Your task to perform on an android device: turn off location Image 0: 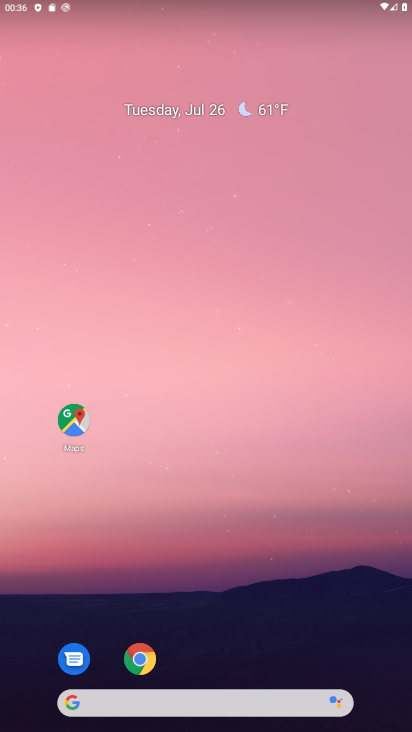
Step 0: drag from (231, 363) to (244, 67)
Your task to perform on an android device: turn off location Image 1: 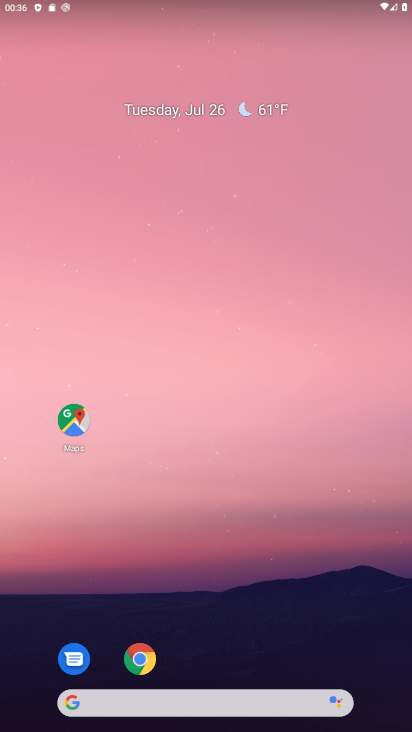
Step 1: drag from (220, 259) to (224, 84)
Your task to perform on an android device: turn off location Image 2: 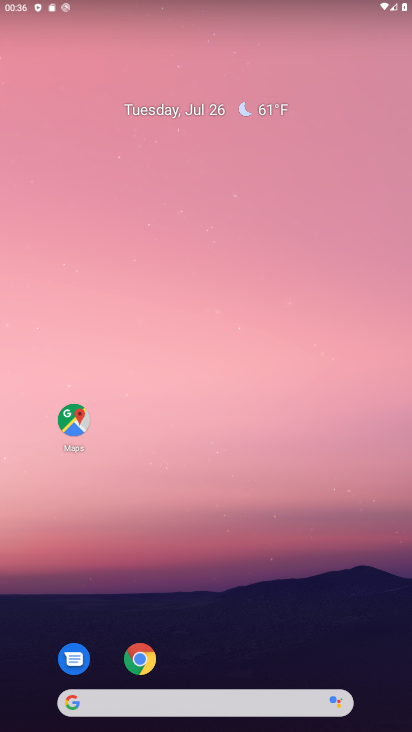
Step 2: drag from (259, 651) to (264, 149)
Your task to perform on an android device: turn off location Image 3: 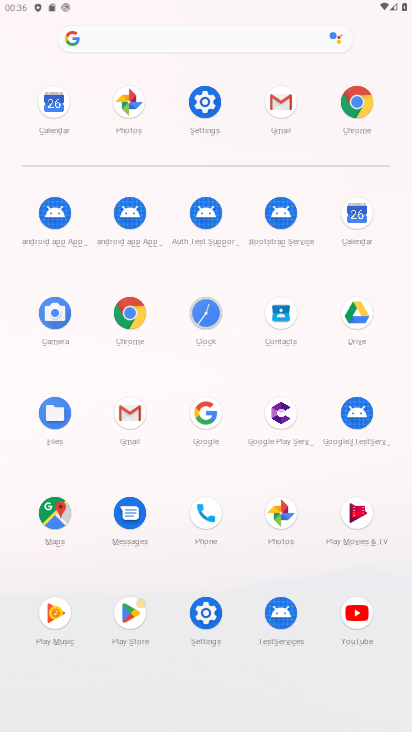
Step 3: click (205, 100)
Your task to perform on an android device: turn off location Image 4: 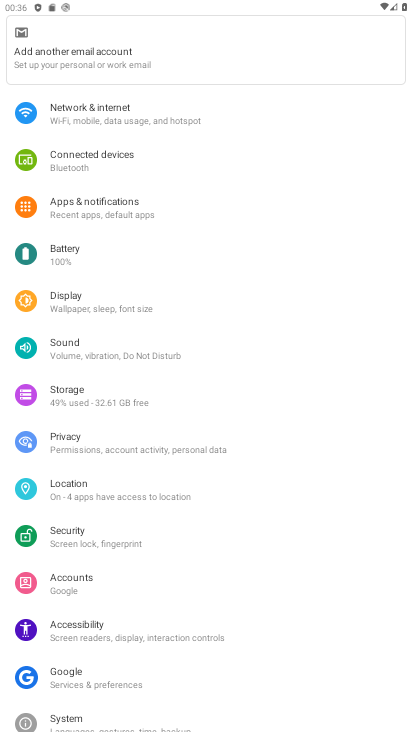
Step 4: click (125, 490)
Your task to perform on an android device: turn off location Image 5: 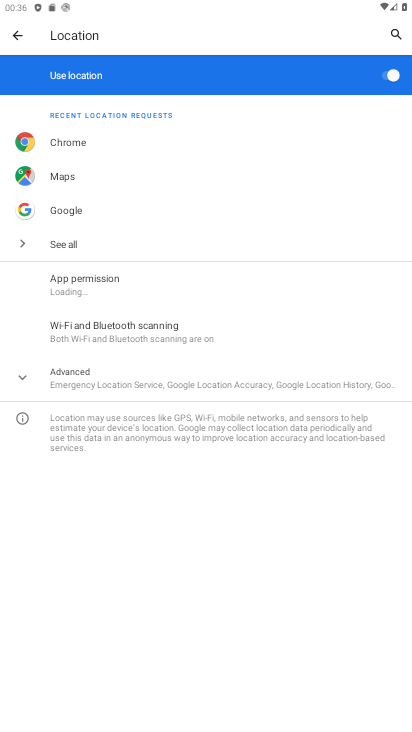
Step 5: click (372, 70)
Your task to perform on an android device: turn off location Image 6: 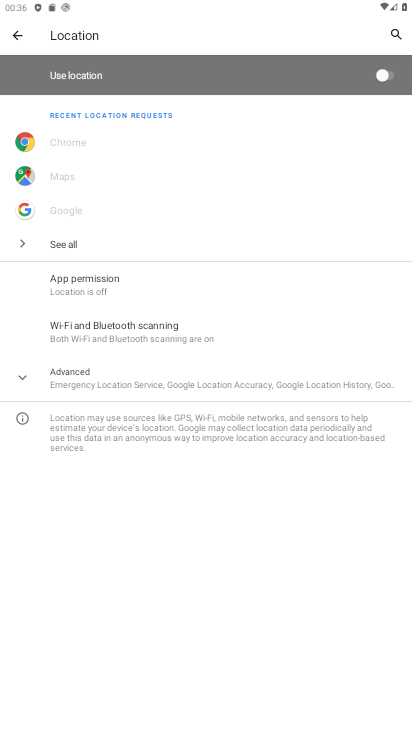
Step 6: task complete